Your task to perform on an android device: remove spam from my inbox in the gmail app Image 0: 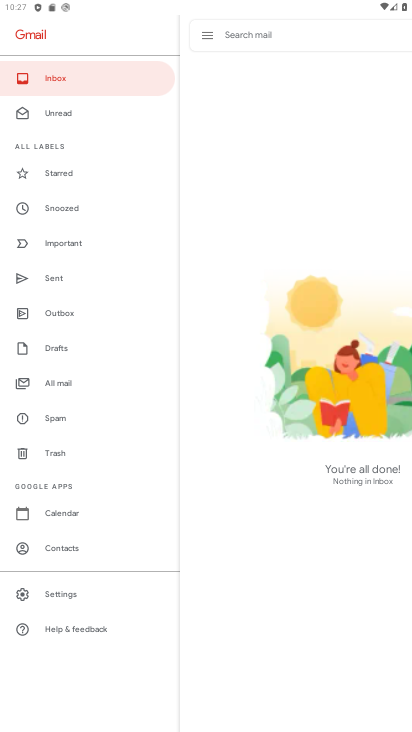
Step 0: task impossible